Your task to perform on an android device: Empty the shopping cart on amazon. Search for razer blade on amazon, select the first entry, and add it to the cart. Image 0: 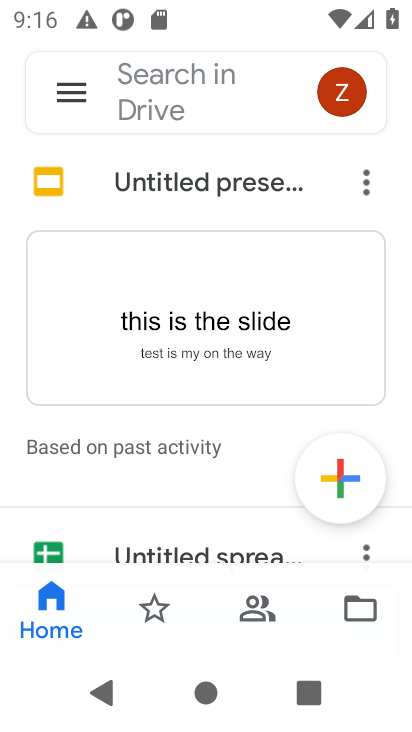
Step 0: press home button
Your task to perform on an android device: Empty the shopping cart on amazon. Search for razer blade on amazon, select the first entry, and add it to the cart. Image 1: 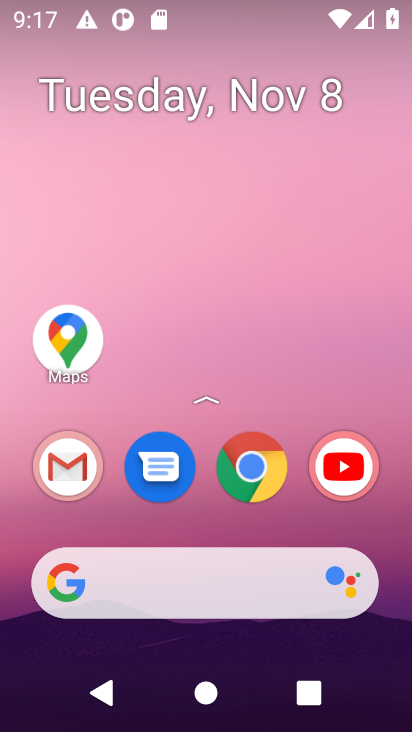
Step 1: click (216, 562)
Your task to perform on an android device: Empty the shopping cart on amazon. Search for razer blade on amazon, select the first entry, and add it to the cart. Image 2: 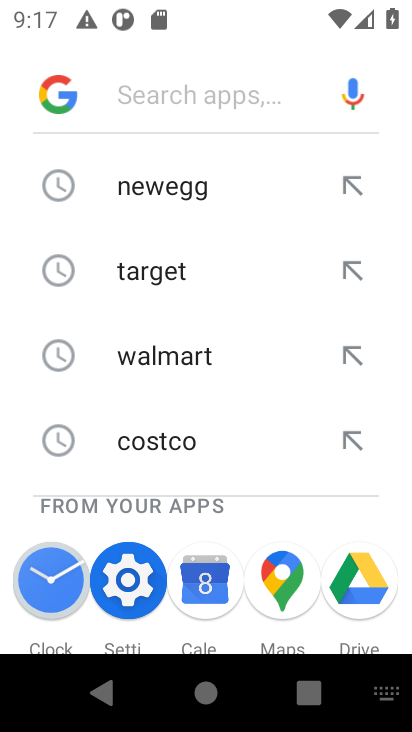
Step 2: type "amazon"
Your task to perform on an android device: Empty the shopping cart on amazon. Search for razer blade on amazon, select the first entry, and add it to the cart. Image 3: 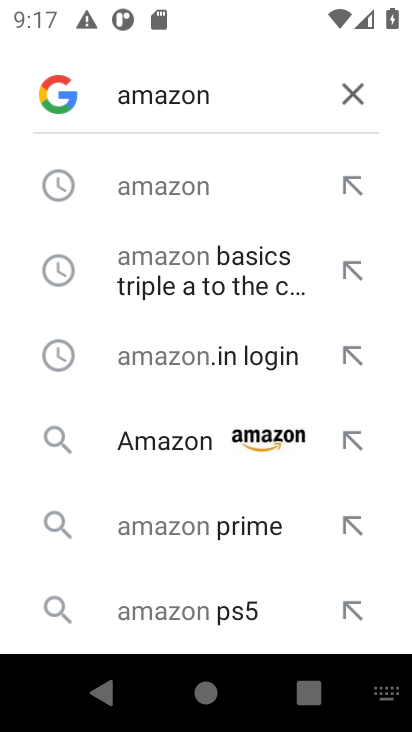
Step 3: click (107, 176)
Your task to perform on an android device: Empty the shopping cart on amazon. Search for razer blade on amazon, select the first entry, and add it to the cart. Image 4: 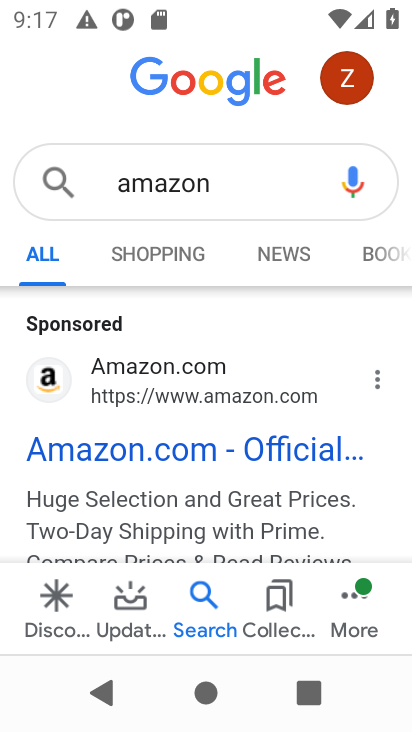
Step 4: click (116, 450)
Your task to perform on an android device: Empty the shopping cart on amazon. Search for razer blade on amazon, select the first entry, and add it to the cart. Image 5: 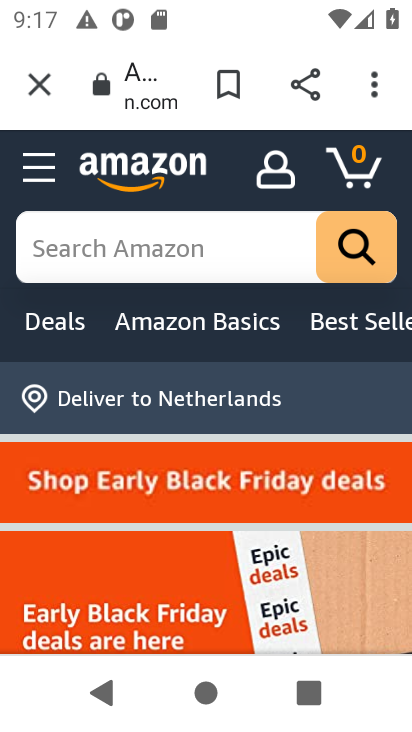
Step 5: click (160, 270)
Your task to perform on an android device: Empty the shopping cart on amazon. Search for razer blade on amazon, select the first entry, and add it to the cart. Image 6: 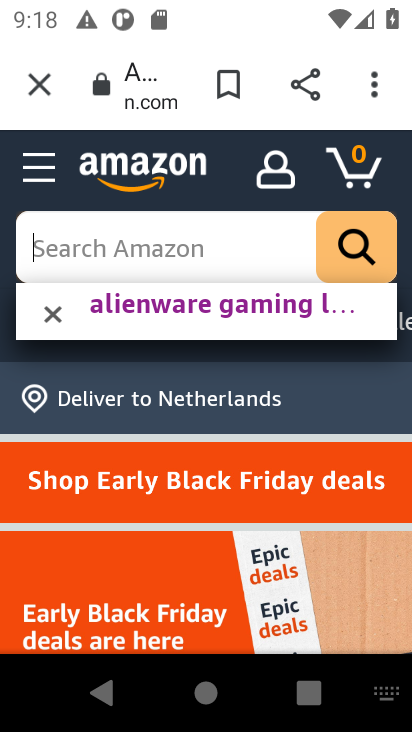
Step 6: task complete